Your task to perform on an android device: toggle improve location accuracy Image 0: 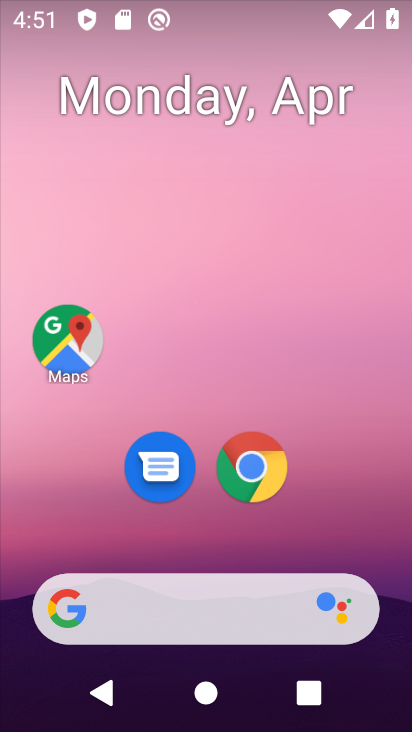
Step 0: drag from (335, 628) to (306, 71)
Your task to perform on an android device: toggle improve location accuracy Image 1: 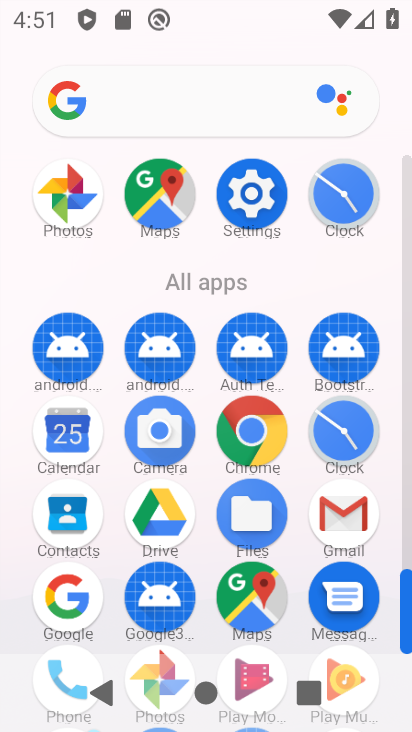
Step 1: click (250, 185)
Your task to perform on an android device: toggle improve location accuracy Image 2: 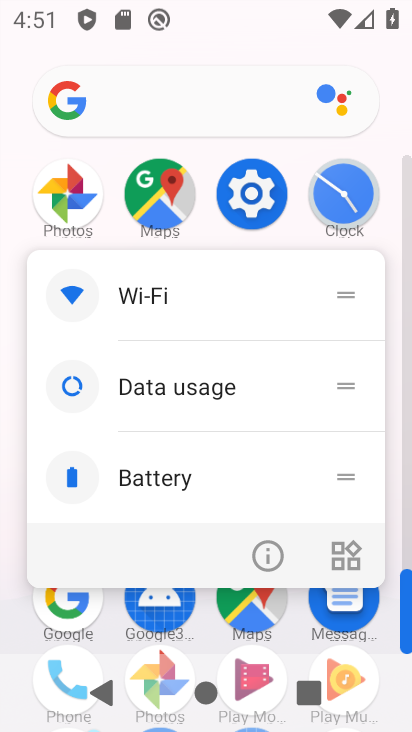
Step 2: click (250, 185)
Your task to perform on an android device: toggle improve location accuracy Image 3: 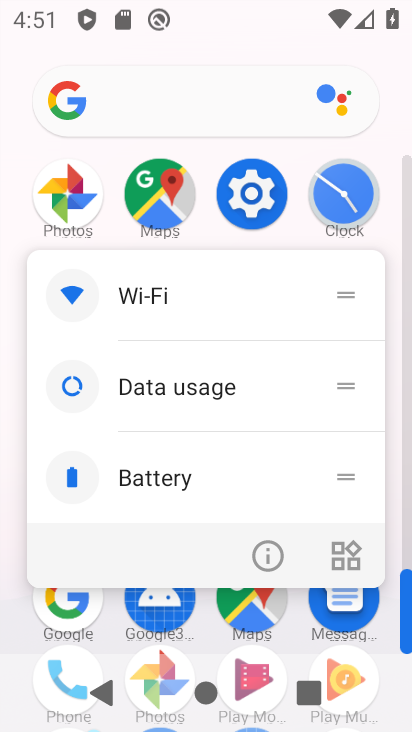
Step 3: click (381, 107)
Your task to perform on an android device: toggle improve location accuracy Image 4: 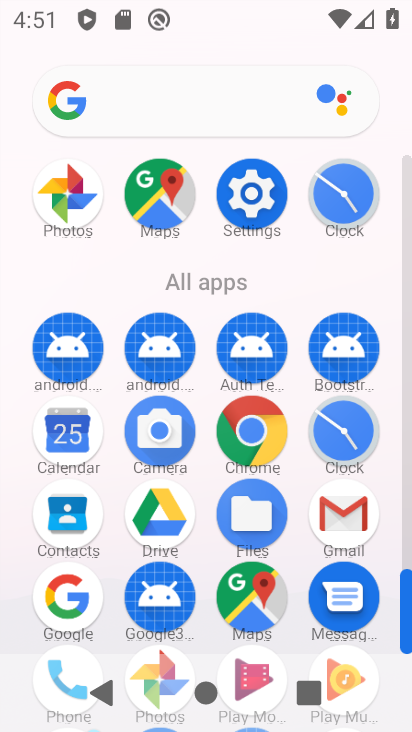
Step 4: drag from (300, 629) to (298, 85)
Your task to perform on an android device: toggle improve location accuracy Image 5: 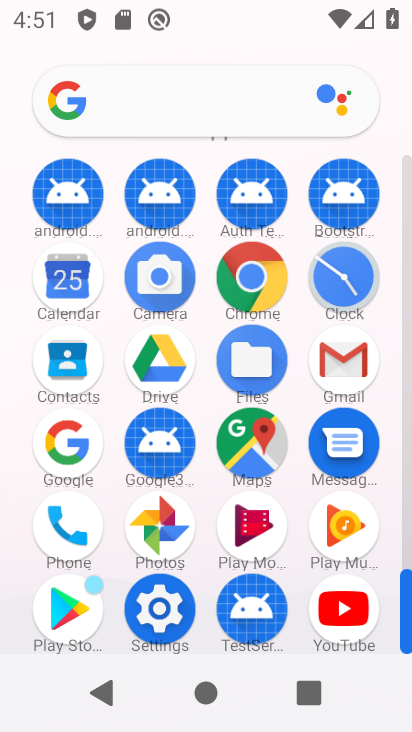
Step 5: click (156, 613)
Your task to perform on an android device: toggle improve location accuracy Image 6: 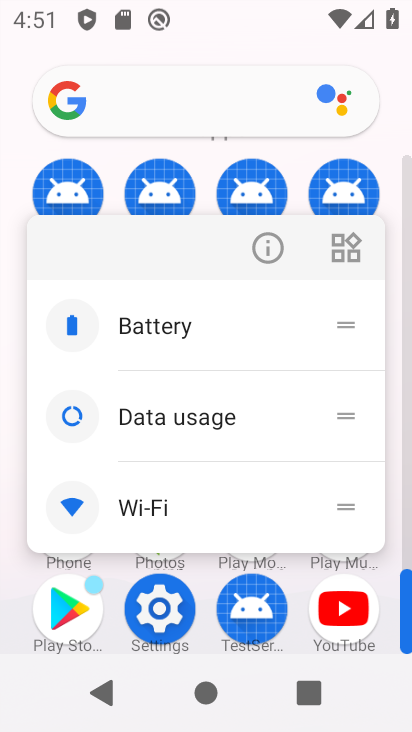
Step 6: click (156, 613)
Your task to perform on an android device: toggle improve location accuracy Image 7: 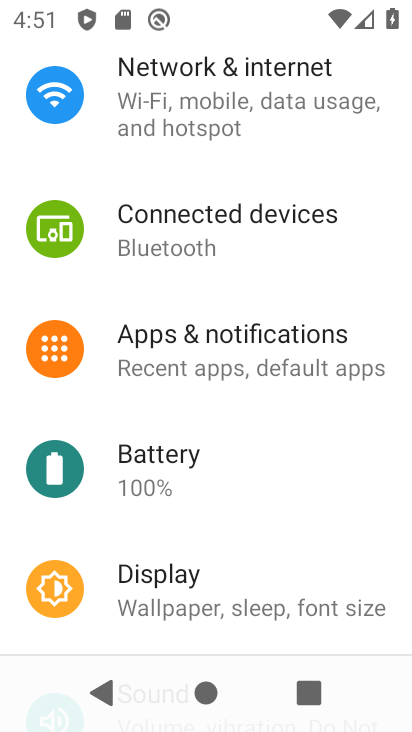
Step 7: drag from (208, 605) to (328, 4)
Your task to perform on an android device: toggle improve location accuracy Image 8: 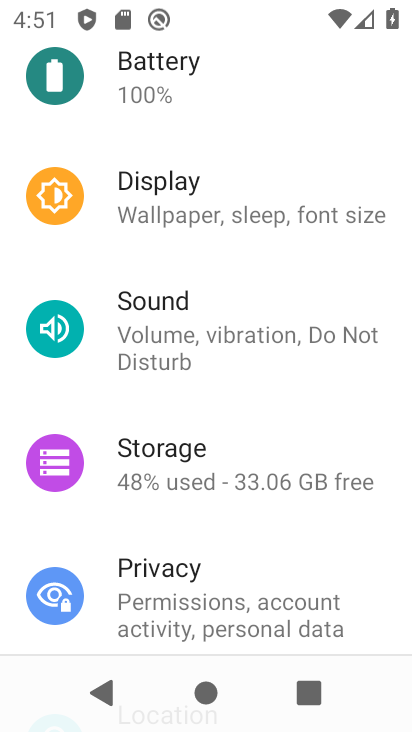
Step 8: drag from (166, 587) to (231, 39)
Your task to perform on an android device: toggle improve location accuracy Image 9: 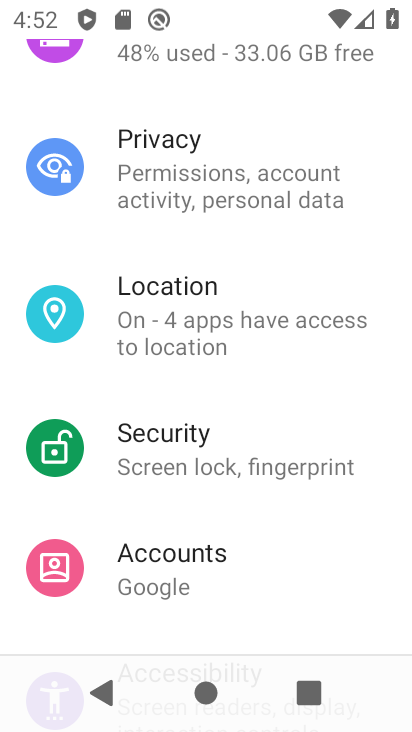
Step 9: click (245, 297)
Your task to perform on an android device: toggle improve location accuracy Image 10: 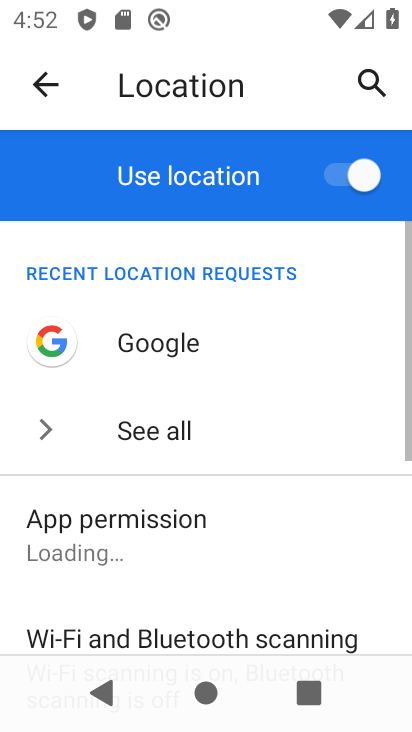
Step 10: drag from (296, 646) to (323, 160)
Your task to perform on an android device: toggle improve location accuracy Image 11: 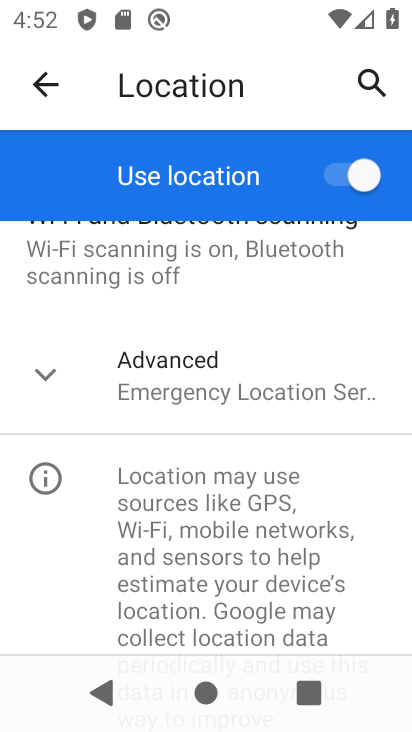
Step 11: click (282, 410)
Your task to perform on an android device: toggle improve location accuracy Image 12: 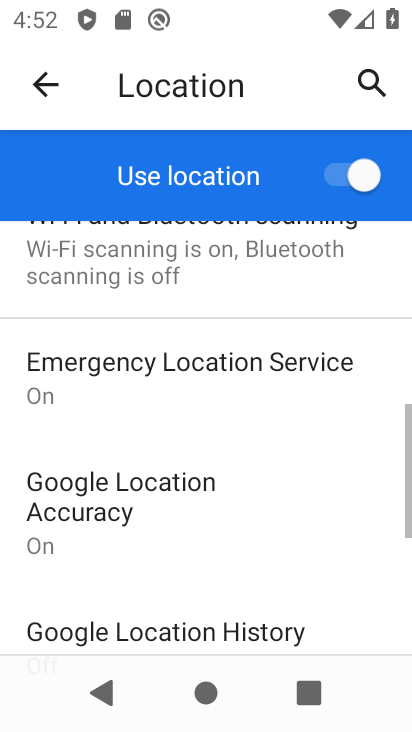
Step 12: drag from (282, 641) to (308, 184)
Your task to perform on an android device: toggle improve location accuracy Image 13: 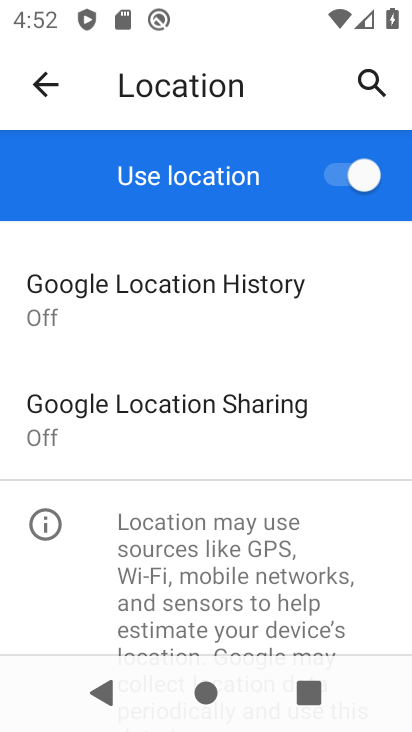
Step 13: drag from (194, 315) to (227, 659)
Your task to perform on an android device: toggle improve location accuracy Image 14: 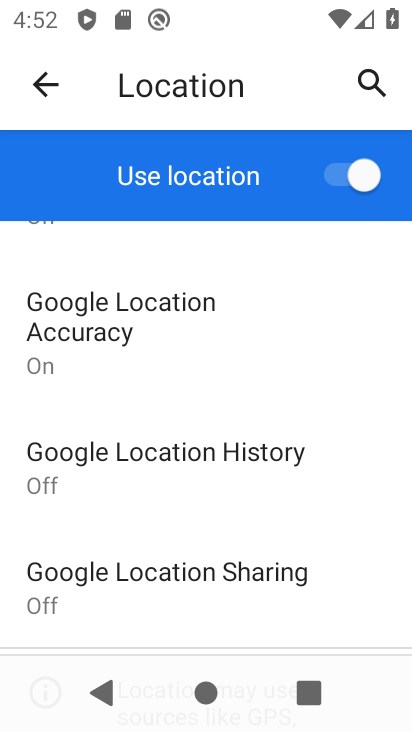
Step 14: click (100, 344)
Your task to perform on an android device: toggle improve location accuracy Image 15: 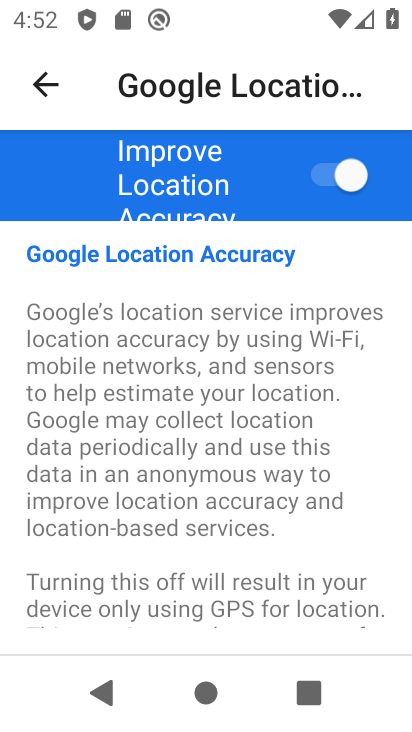
Step 15: click (322, 176)
Your task to perform on an android device: toggle improve location accuracy Image 16: 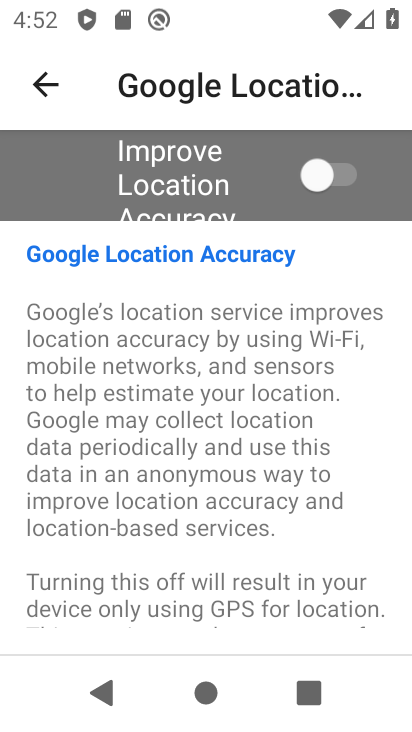
Step 16: task complete